Your task to perform on an android device: change the clock style Image 0: 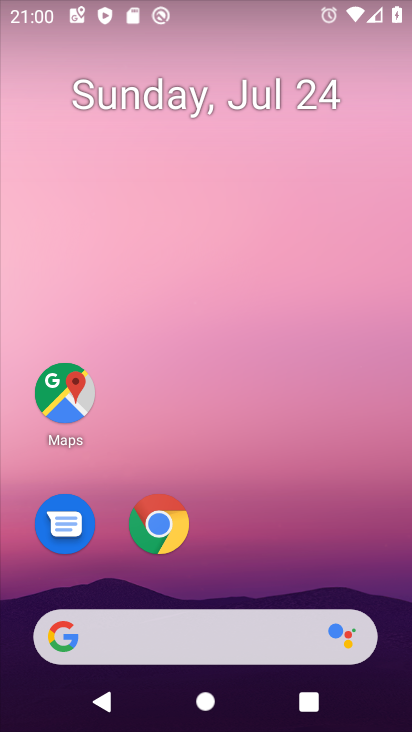
Step 0: drag from (275, 579) to (291, 59)
Your task to perform on an android device: change the clock style Image 1: 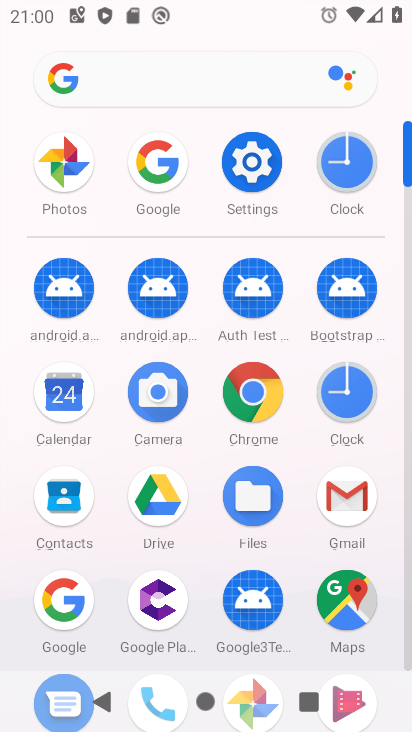
Step 1: click (341, 160)
Your task to perform on an android device: change the clock style Image 2: 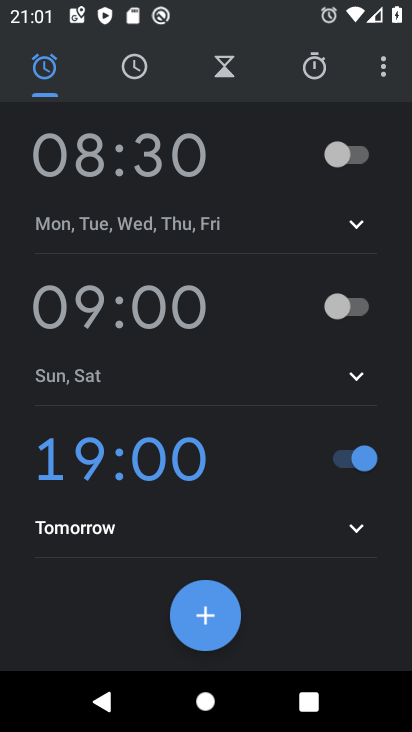
Step 2: click (140, 66)
Your task to perform on an android device: change the clock style Image 3: 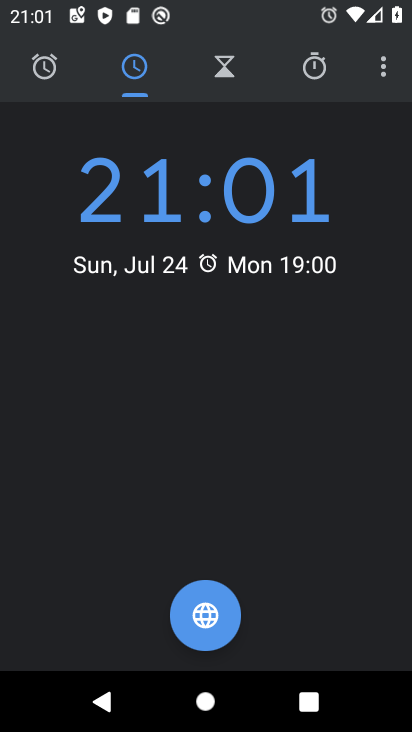
Step 3: click (387, 69)
Your task to perform on an android device: change the clock style Image 4: 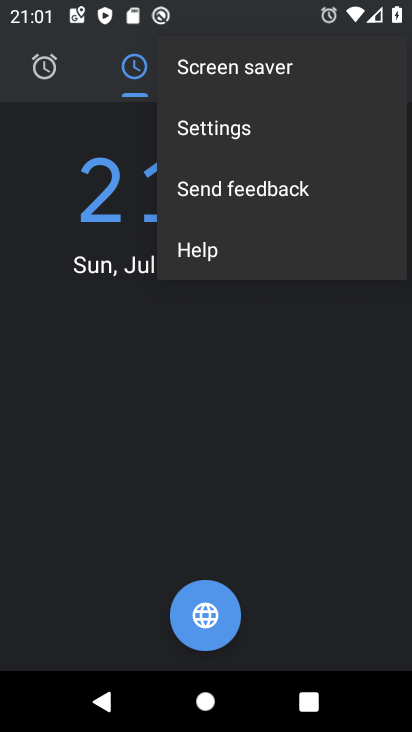
Step 4: click (229, 119)
Your task to perform on an android device: change the clock style Image 5: 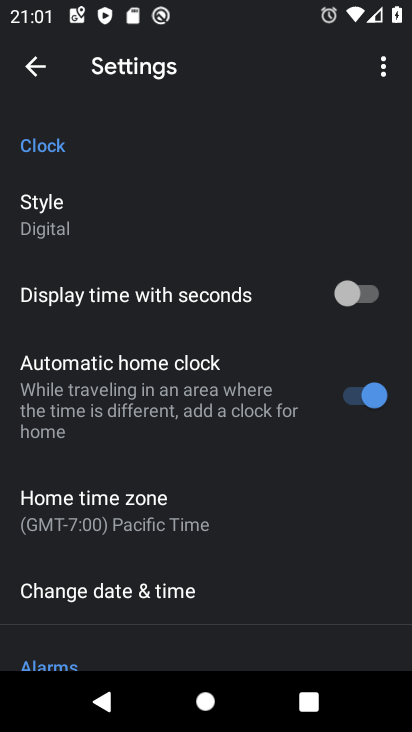
Step 5: click (69, 215)
Your task to perform on an android device: change the clock style Image 6: 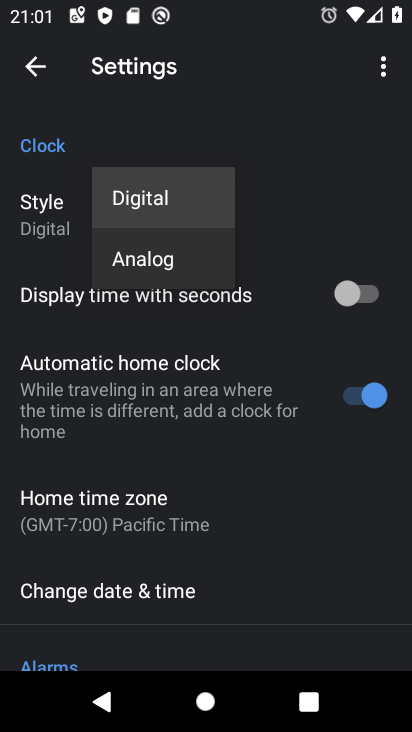
Step 6: click (132, 261)
Your task to perform on an android device: change the clock style Image 7: 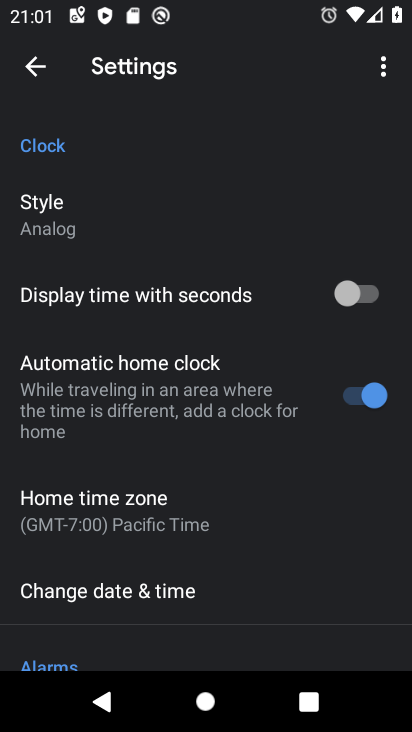
Step 7: click (39, 66)
Your task to perform on an android device: change the clock style Image 8: 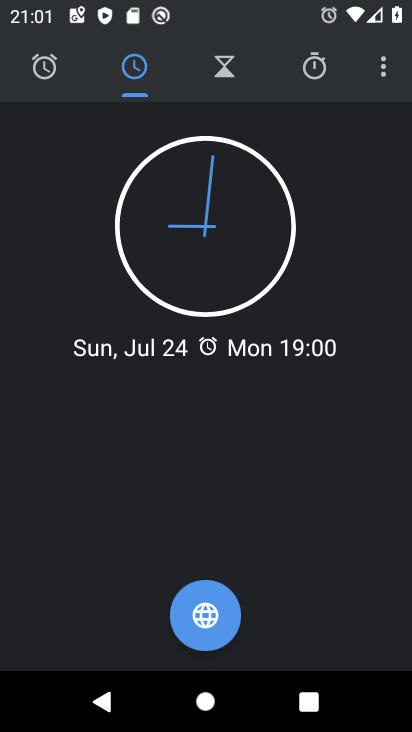
Step 8: task complete